Your task to perform on an android device: Go to calendar. Show me events next week Image 0: 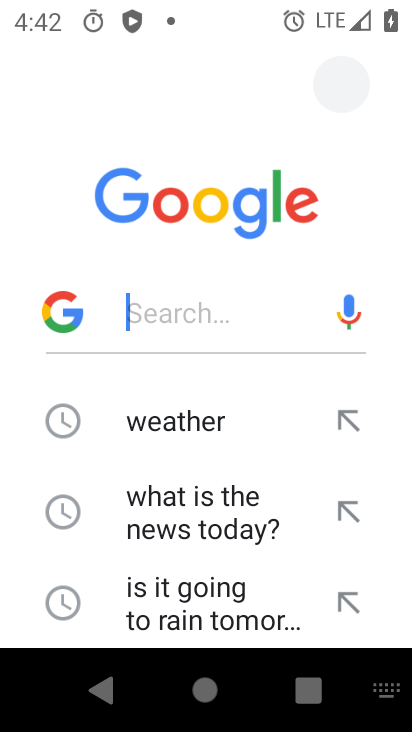
Step 0: press home button
Your task to perform on an android device: Go to calendar. Show me events next week Image 1: 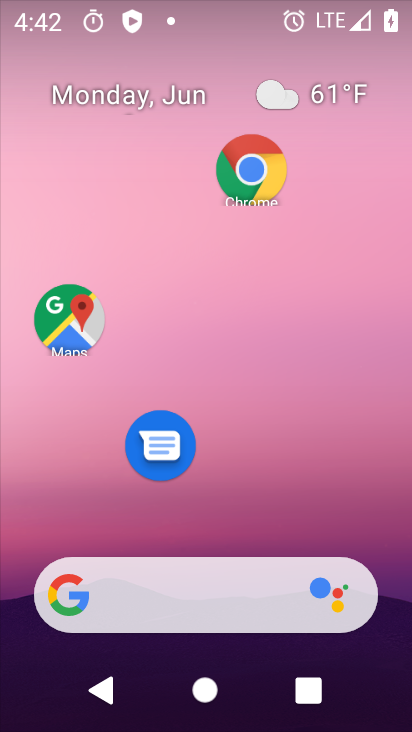
Step 1: drag from (207, 538) to (271, 1)
Your task to perform on an android device: Go to calendar. Show me events next week Image 2: 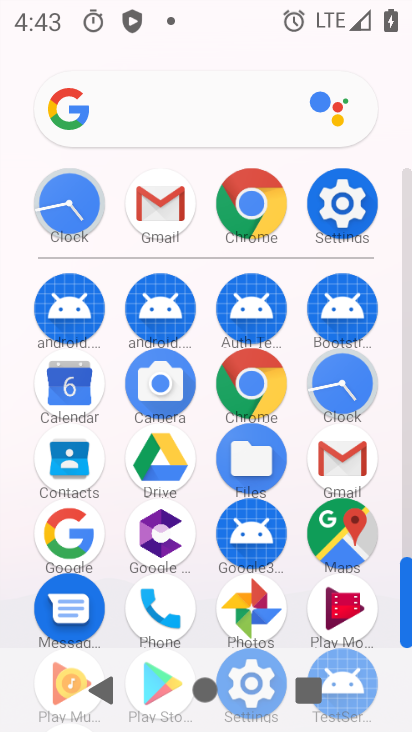
Step 2: click (75, 416)
Your task to perform on an android device: Go to calendar. Show me events next week Image 3: 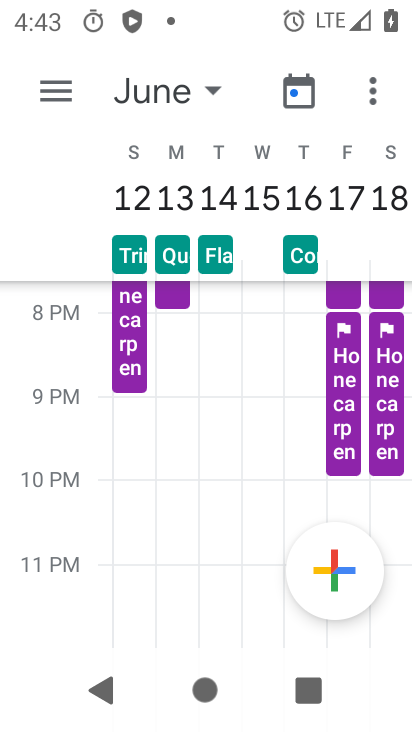
Step 3: task complete